Your task to perform on an android device: What is the news today? Image 0: 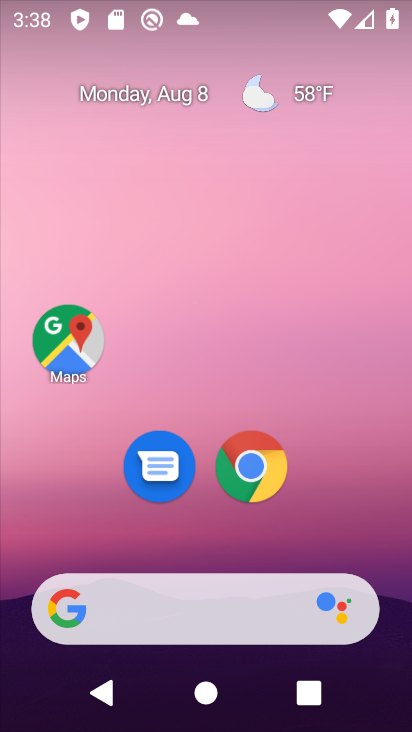
Step 0: drag from (176, 568) to (222, 183)
Your task to perform on an android device: What is the news today? Image 1: 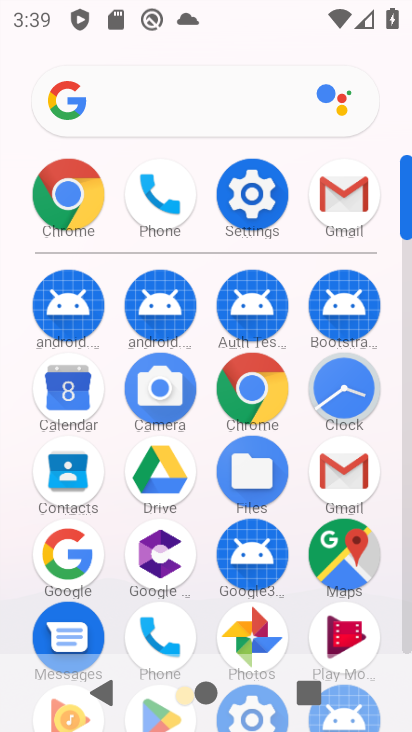
Step 1: click (52, 209)
Your task to perform on an android device: What is the news today? Image 2: 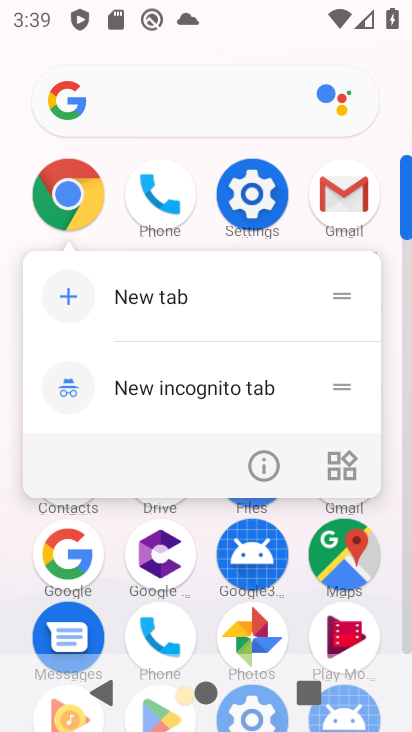
Step 2: click (44, 158)
Your task to perform on an android device: What is the news today? Image 3: 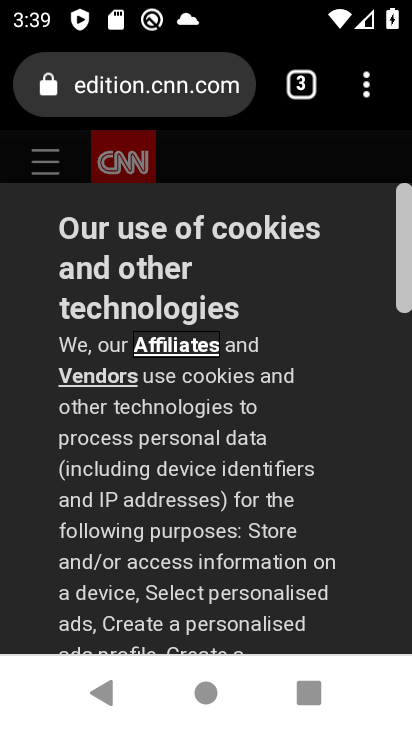
Step 3: click (372, 90)
Your task to perform on an android device: What is the news today? Image 4: 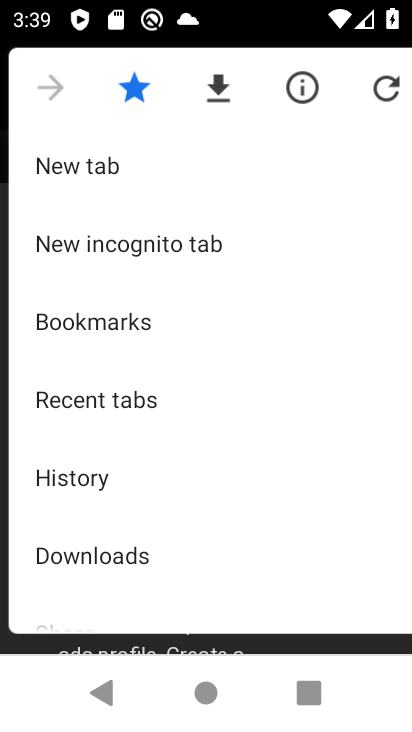
Step 4: click (113, 166)
Your task to perform on an android device: What is the news today? Image 5: 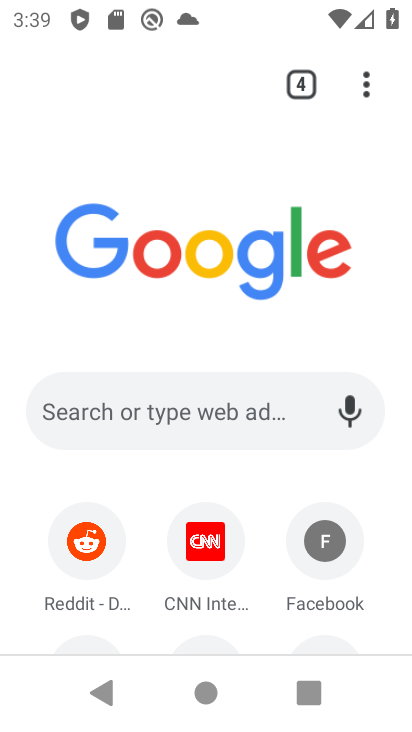
Step 5: click (210, 400)
Your task to perform on an android device: What is the news today? Image 6: 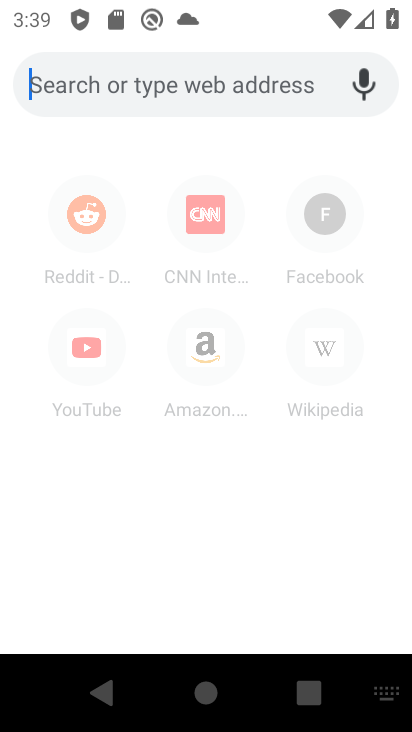
Step 6: type "What is the news today? "
Your task to perform on an android device: What is the news today? Image 7: 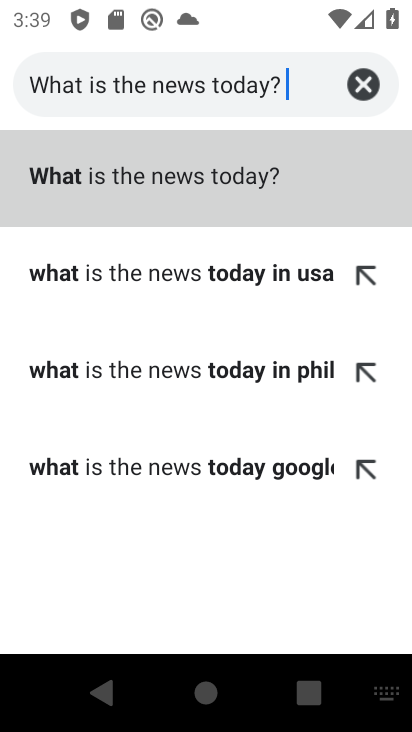
Step 7: click (195, 170)
Your task to perform on an android device: What is the news today? Image 8: 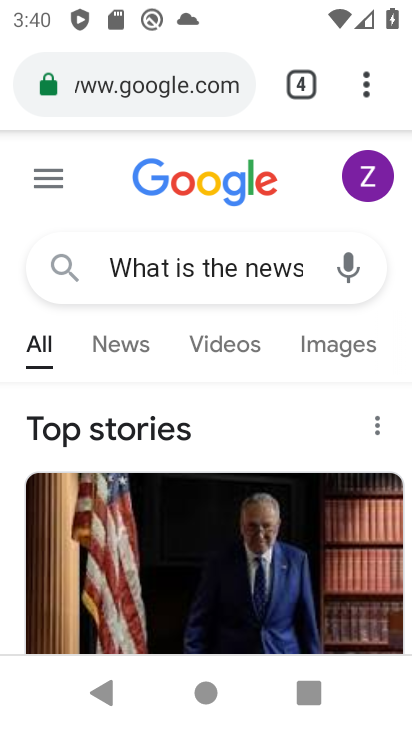
Step 8: task complete